Your task to perform on an android device: Open Wikipedia Image 0: 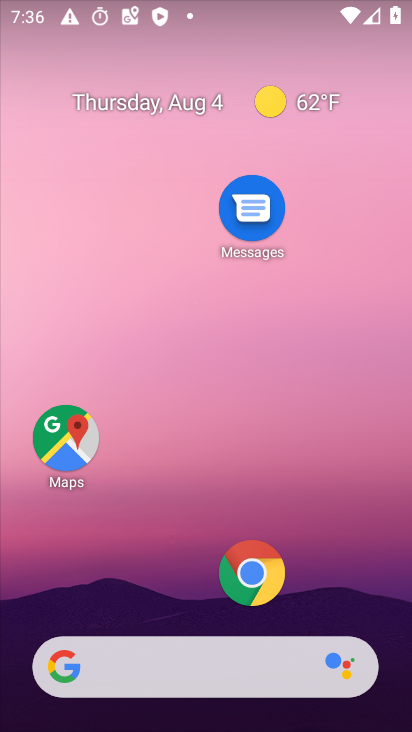
Step 0: press home button
Your task to perform on an android device: Open Wikipedia Image 1: 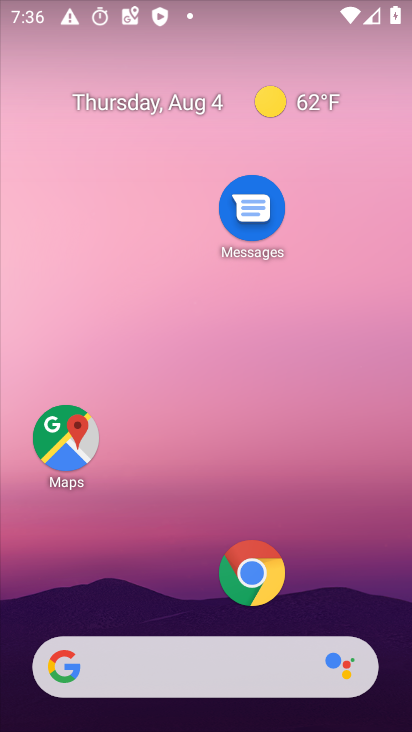
Step 1: click (65, 672)
Your task to perform on an android device: Open Wikipedia Image 2: 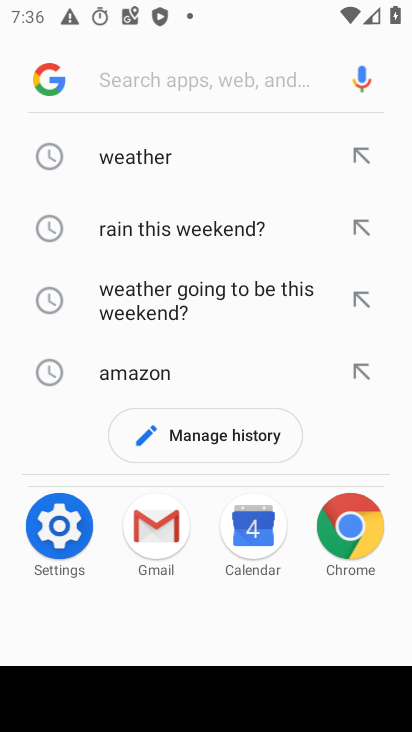
Step 2: type "Wikipedia"
Your task to perform on an android device: Open Wikipedia Image 3: 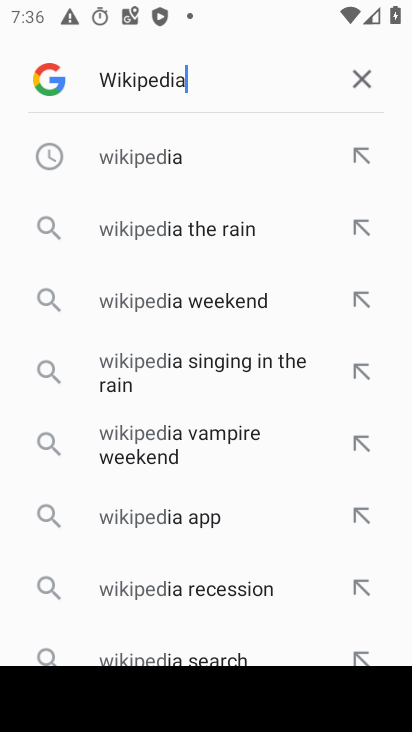
Step 3: press enter
Your task to perform on an android device: Open Wikipedia Image 4: 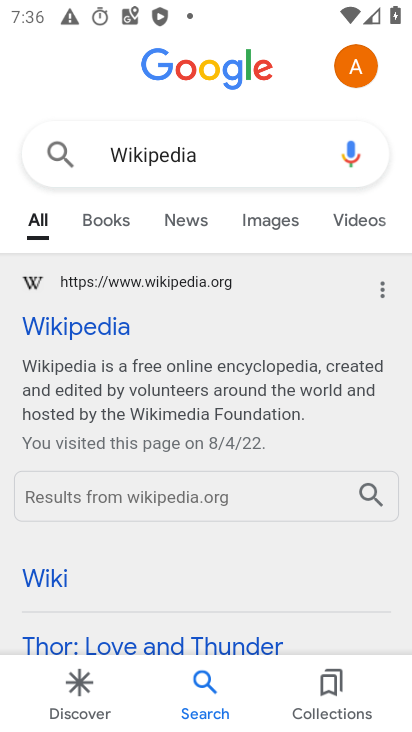
Step 4: click (84, 331)
Your task to perform on an android device: Open Wikipedia Image 5: 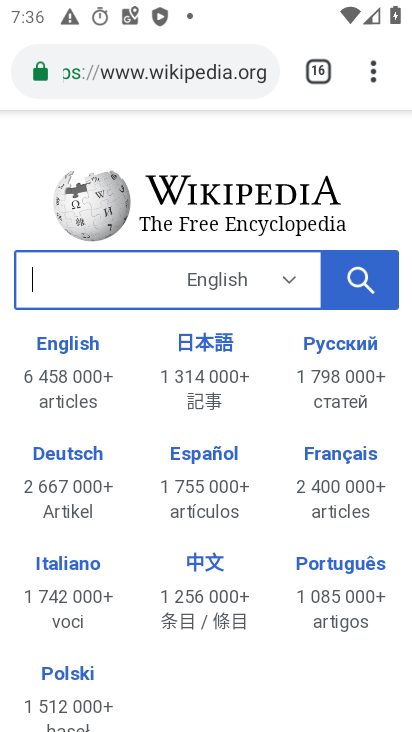
Step 5: task complete